Your task to perform on an android device: allow cookies in the chrome app Image 0: 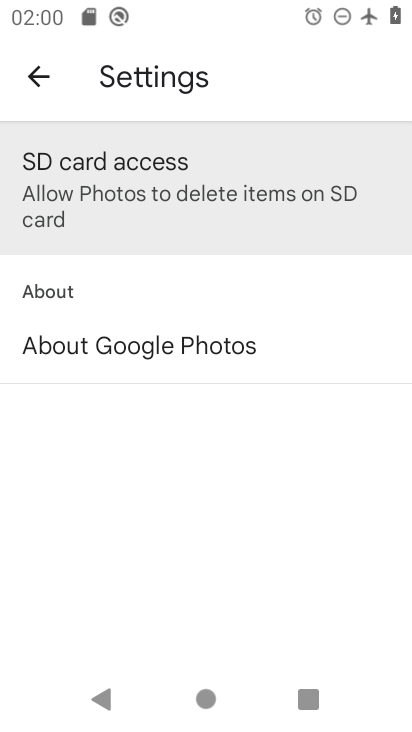
Step 0: click (320, 546)
Your task to perform on an android device: allow cookies in the chrome app Image 1: 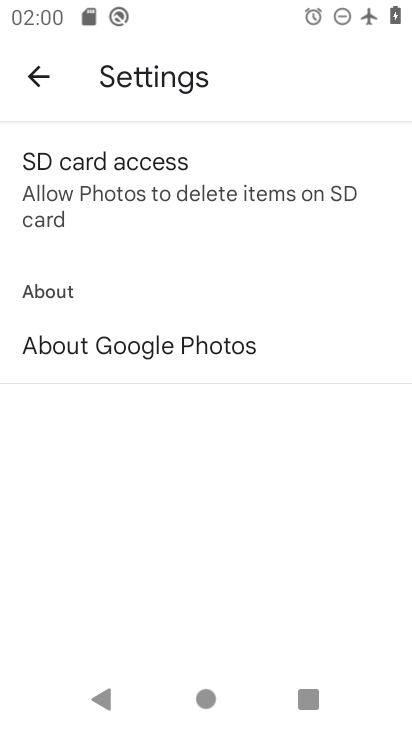
Step 1: press home button
Your task to perform on an android device: allow cookies in the chrome app Image 2: 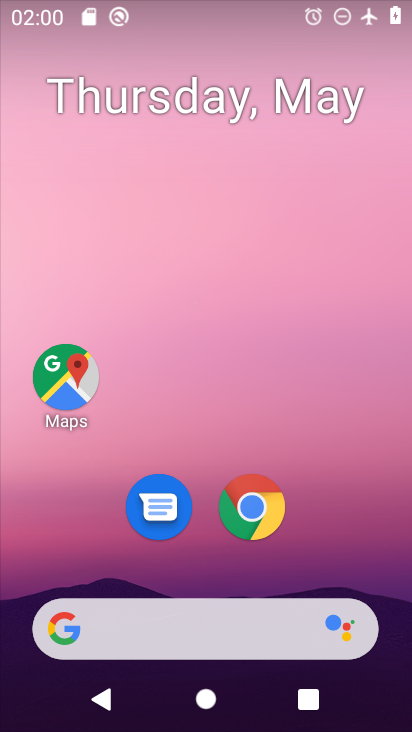
Step 2: drag from (349, 524) to (348, 26)
Your task to perform on an android device: allow cookies in the chrome app Image 3: 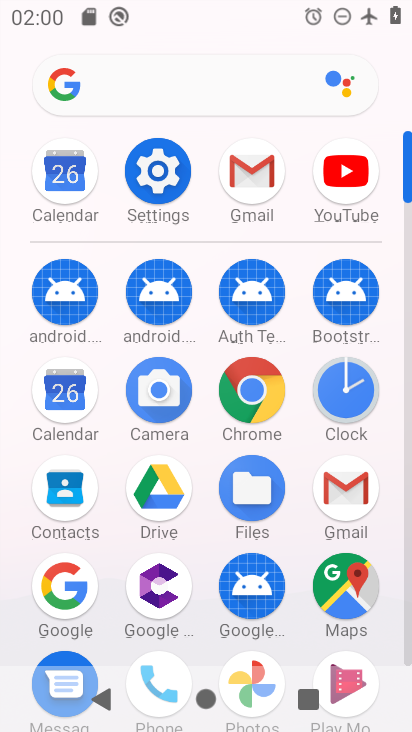
Step 3: click (171, 173)
Your task to perform on an android device: allow cookies in the chrome app Image 4: 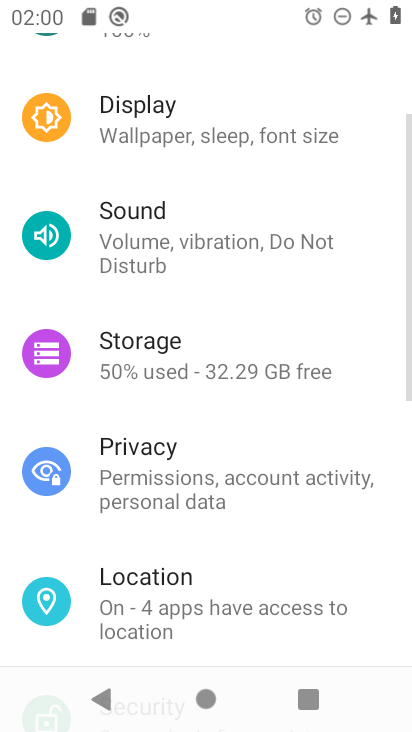
Step 4: drag from (260, 152) to (249, 640)
Your task to perform on an android device: allow cookies in the chrome app Image 5: 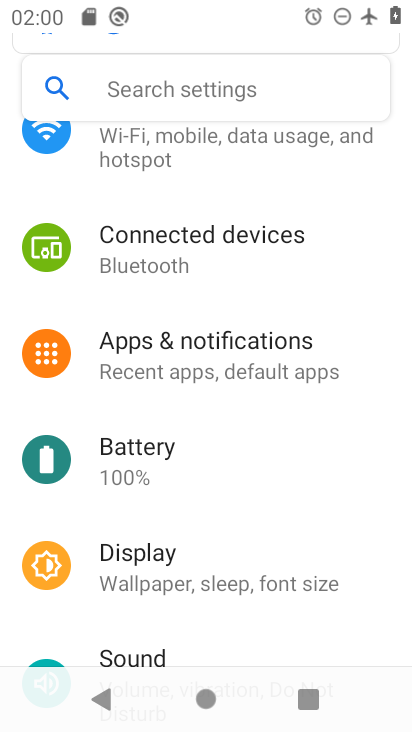
Step 5: click (300, 144)
Your task to perform on an android device: allow cookies in the chrome app Image 6: 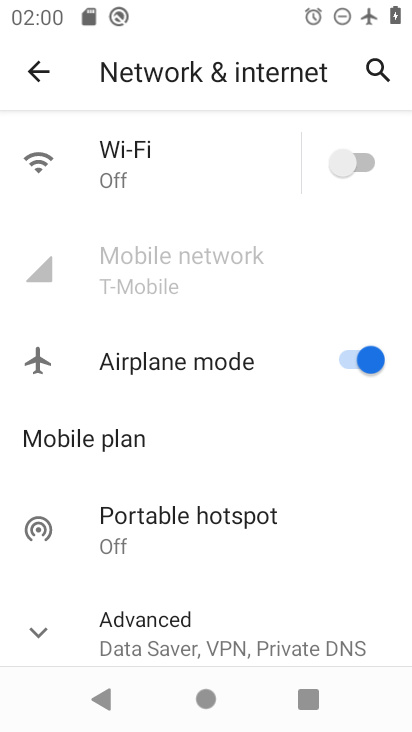
Step 6: click (348, 153)
Your task to perform on an android device: allow cookies in the chrome app Image 7: 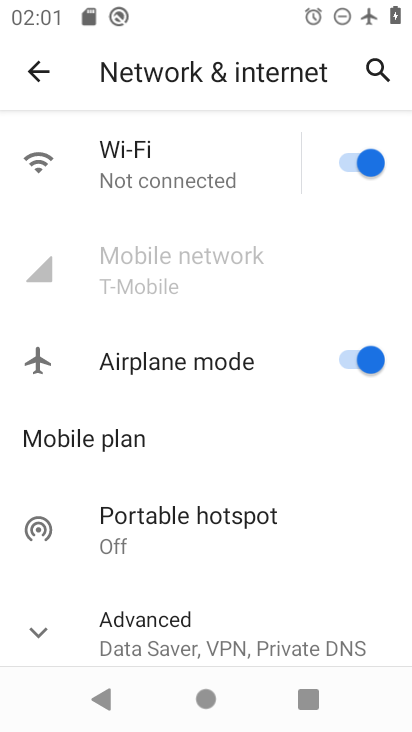
Step 7: press home button
Your task to perform on an android device: allow cookies in the chrome app Image 8: 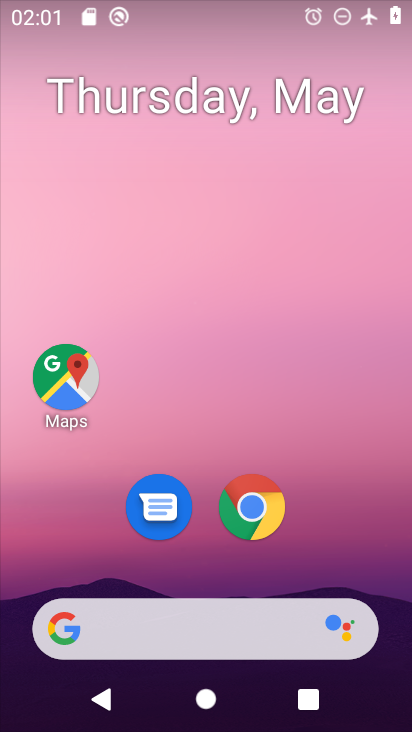
Step 8: click (257, 505)
Your task to perform on an android device: allow cookies in the chrome app Image 9: 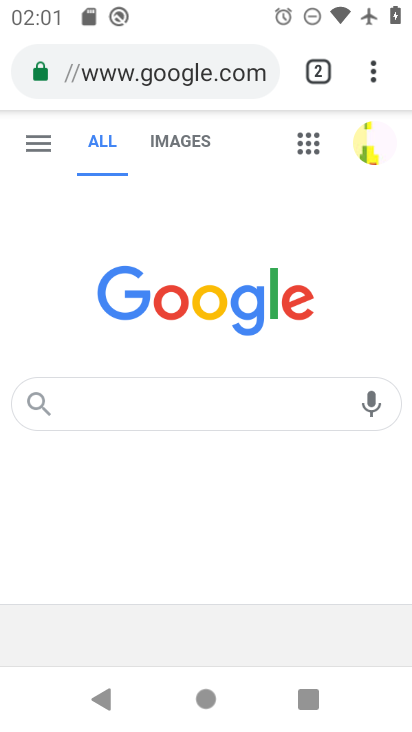
Step 9: click (382, 72)
Your task to perform on an android device: allow cookies in the chrome app Image 10: 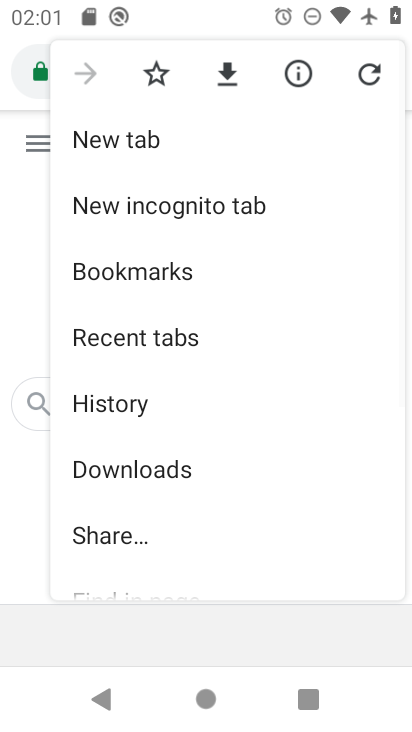
Step 10: drag from (196, 463) to (231, 284)
Your task to perform on an android device: allow cookies in the chrome app Image 11: 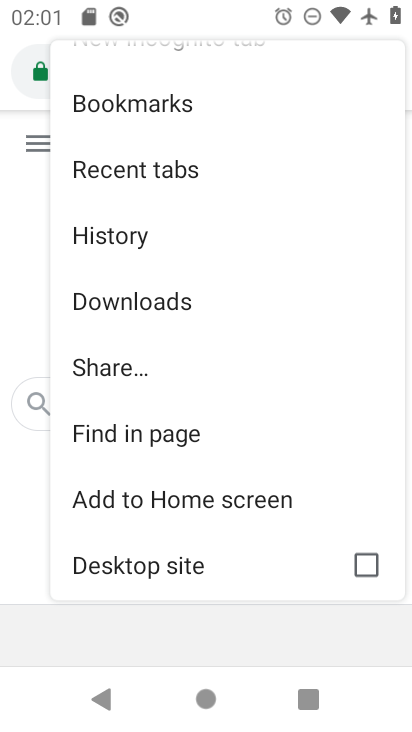
Step 11: drag from (126, 549) to (129, 417)
Your task to perform on an android device: allow cookies in the chrome app Image 12: 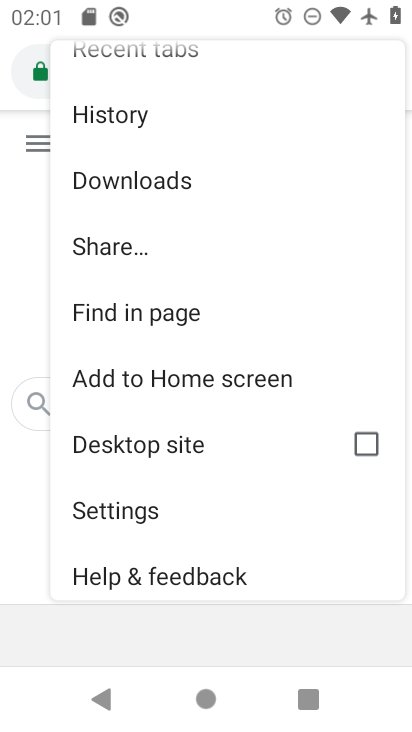
Step 12: click (129, 524)
Your task to perform on an android device: allow cookies in the chrome app Image 13: 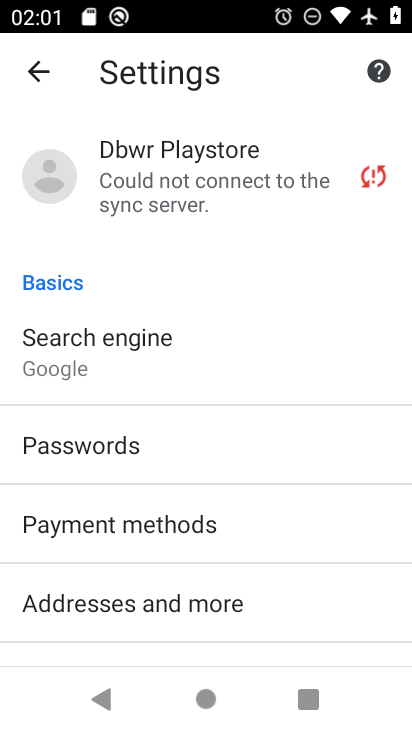
Step 13: task complete